Your task to perform on an android device: Go to Maps Image 0: 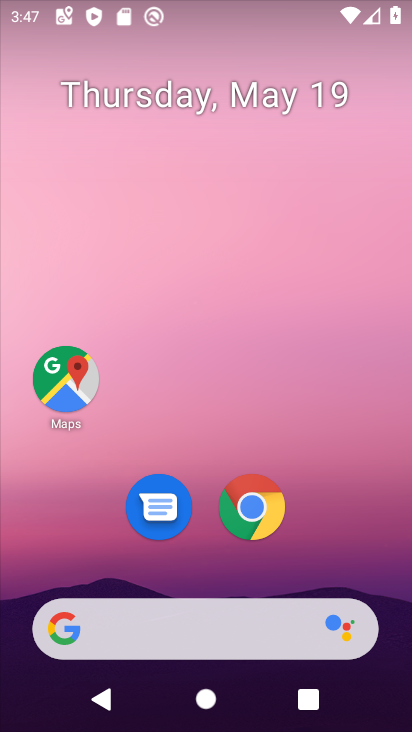
Step 0: click (353, 506)
Your task to perform on an android device: Go to Maps Image 1: 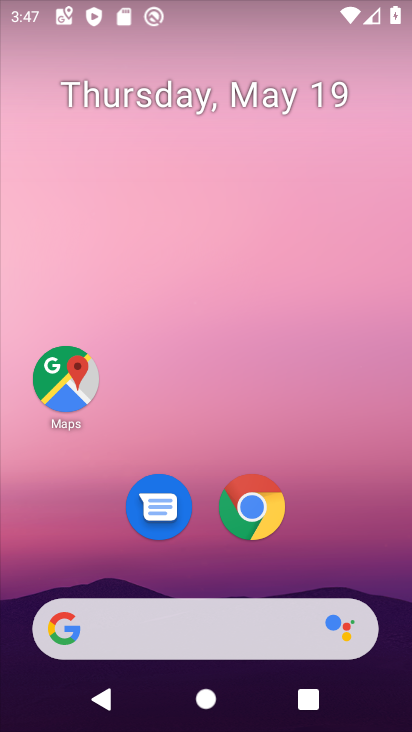
Step 1: click (57, 386)
Your task to perform on an android device: Go to Maps Image 2: 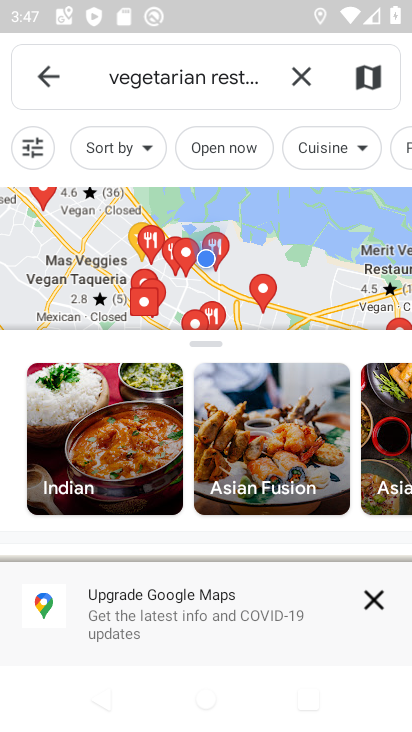
Step 2: click (41, 77)
Your task to perform on an android device: Go to Maps Image 3: 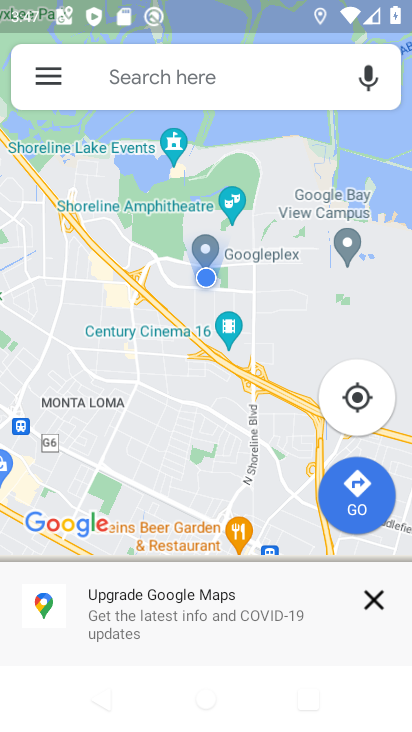
Step 3: task complete